Your task to perform on an android device: Search for Mexican restaurants on Maps Image 0: 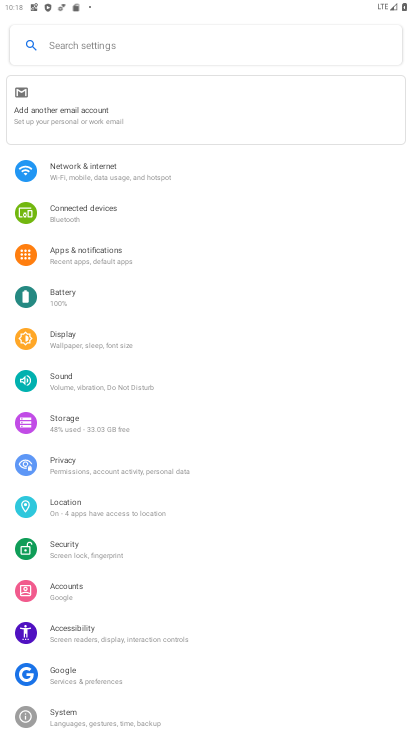
Step 0: press home button
Your task to perform on an android device: Search for Mexican restaurants on Maps Image 1: 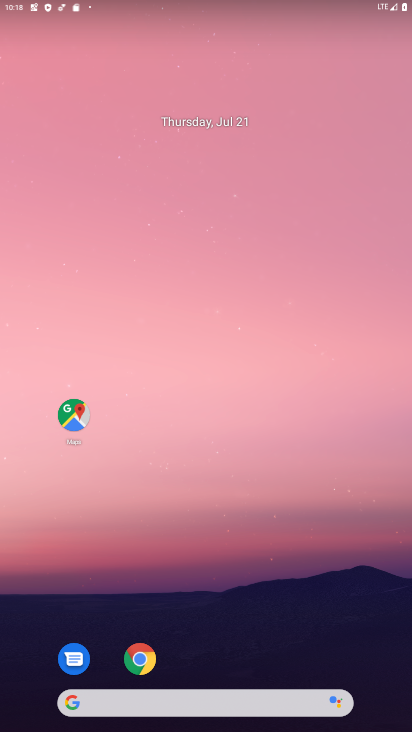
Step 1: drag from (287, 622) to (226, 66)
Your task to perform on an android device: Search for Mexican restaurants on Maps Image 2: 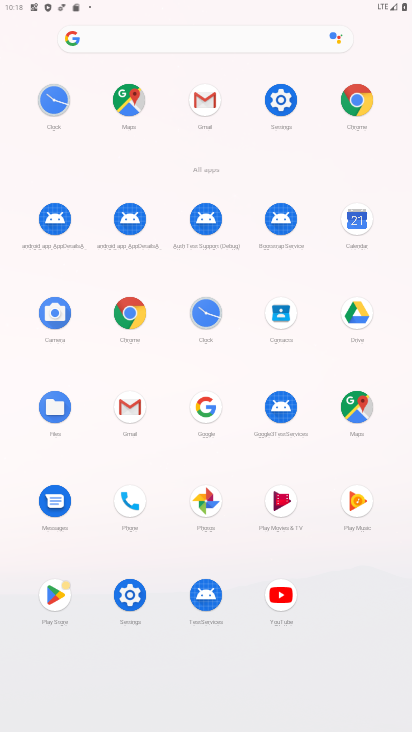
Step 2: click (362, 403)
Your task to perform on an android device: Search for Mexican restaurants on Maps Image 3: 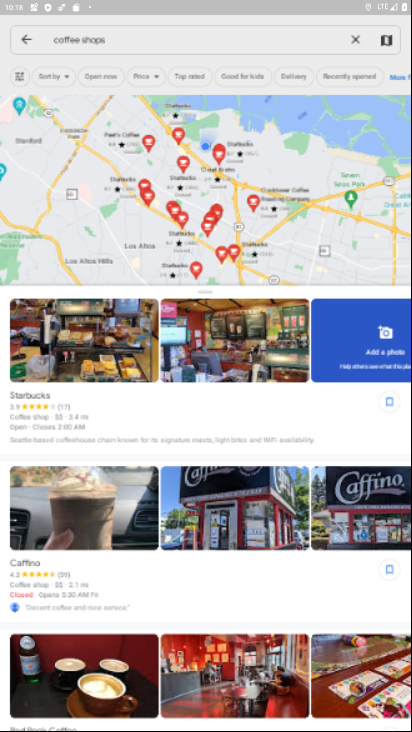
Step 3: click (229, 38)
Your task to perform on an android device: Search for Mexican restaurants on Maps Image 4: 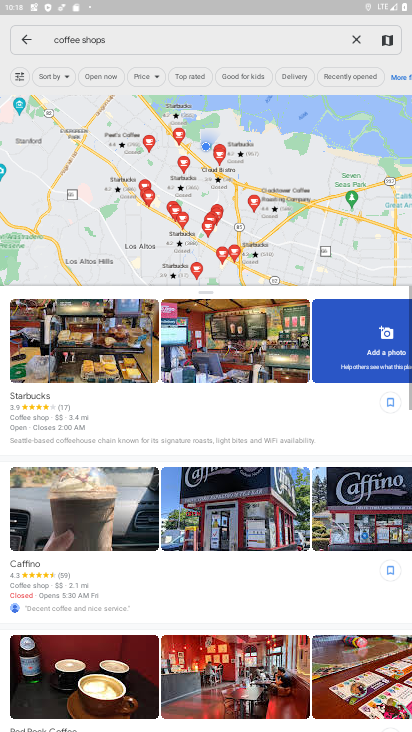
Step 4: click (291, 38)
Your task to perform on an android device: Search for Mexican restaurants on Maps Image 5: 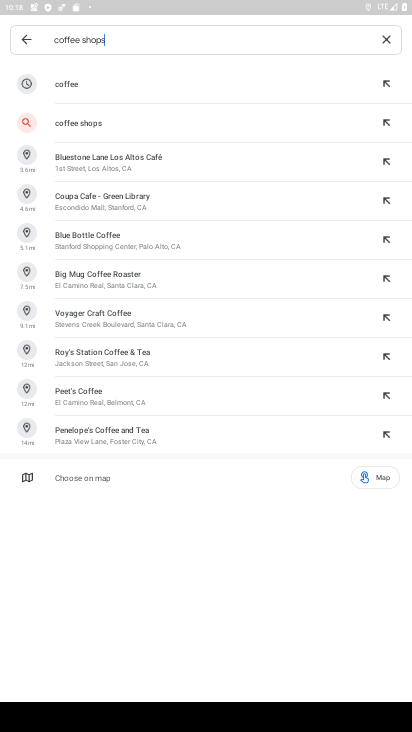
Step 5: click (386, 38)
Your task to perform on an android device: Search for Mexican restaurants on Maps Image 6: 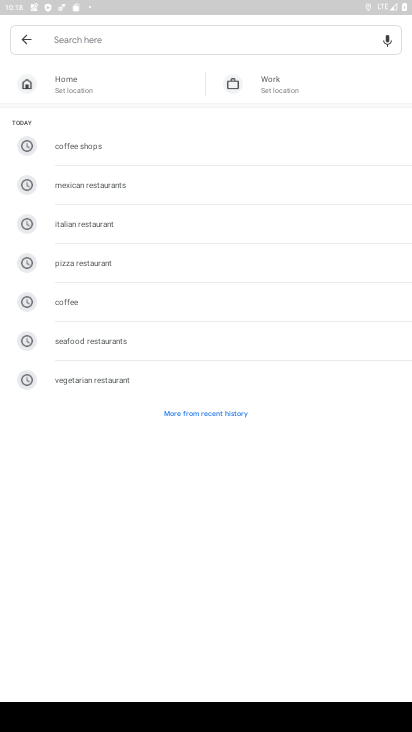
Step 6: click (105, 188)
Your task to perform on an android device: Search for Mexican restaurants on Maps Image 7: 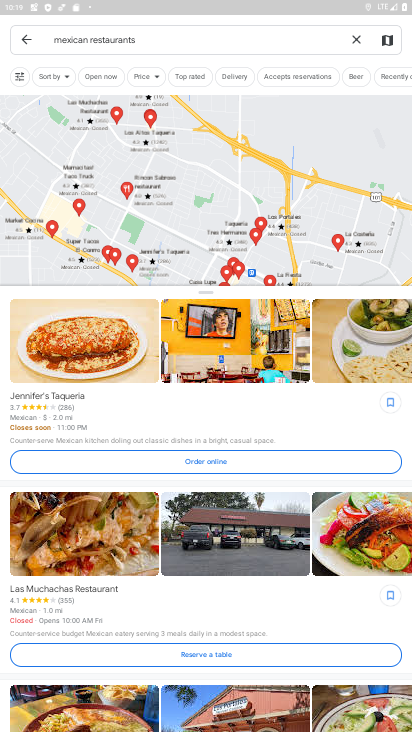
Step 7: task complete